Your task to perform on an android device: Show me productivity apps on the Play Store Image 0: 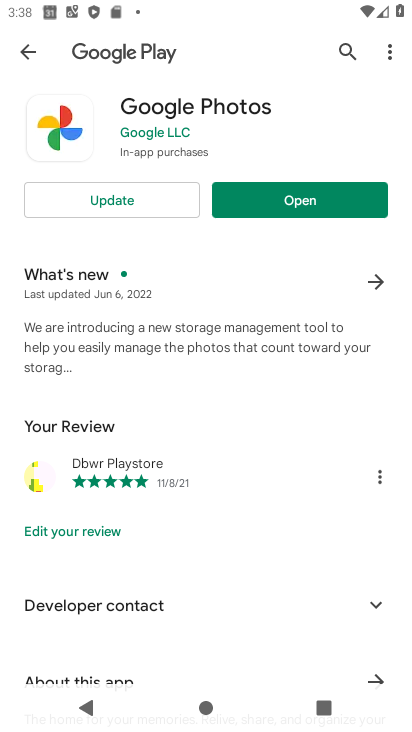
Step 0: press home button
Your task to perform on an android device: Show me productivity apps on the Play Store Image 1: 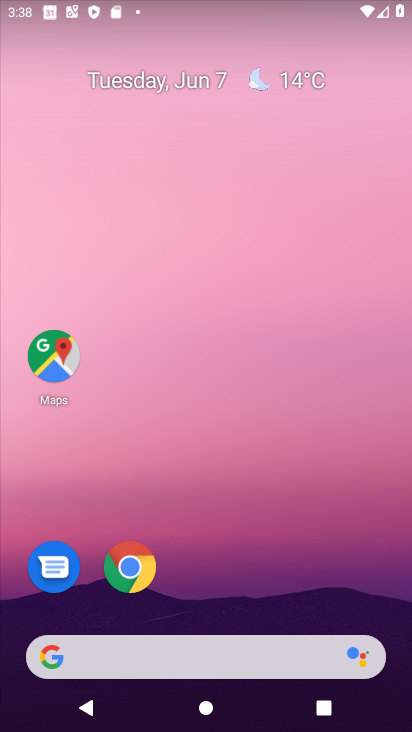
Step 1: drag from (188, 594) to (137, 184)
Your task to perform on an android device: Show me productivity apps on the Play Store Image 2: 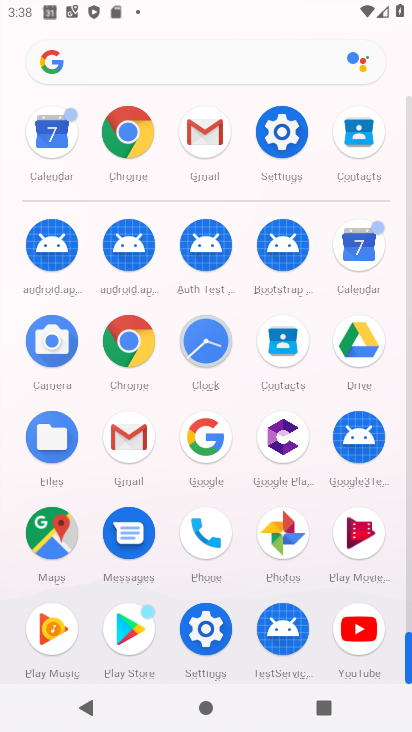
Step 2: click (132, 605)
Your task to perform on an android device: Show me productivity apps on the Play Store Image 3: 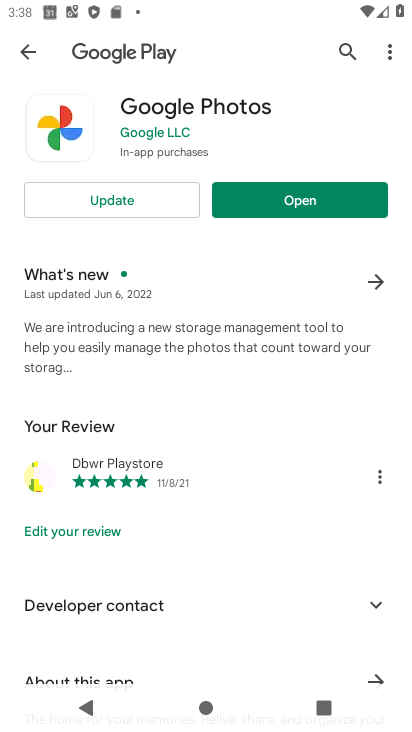
Step 3: click (28, 53)
Your task to perform on an android device: Show me productivity apps on the Play Store Image 4: 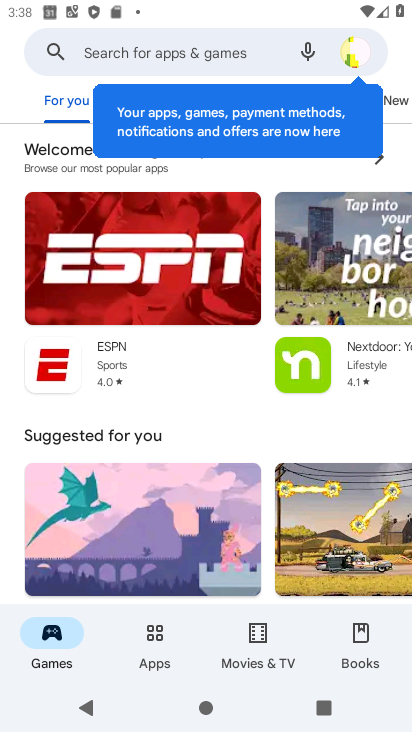
Step 4: click (150, 640)
Your task to perform on an android device: Show me productivity apps on the Play Store Image 5: 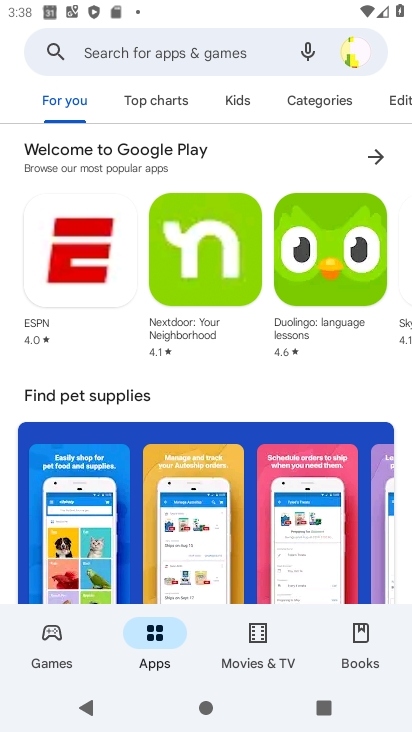
Step 5: click (333, 95)
Your task to perform on an android device: Show me productivity apps on the Play Store Image 6: 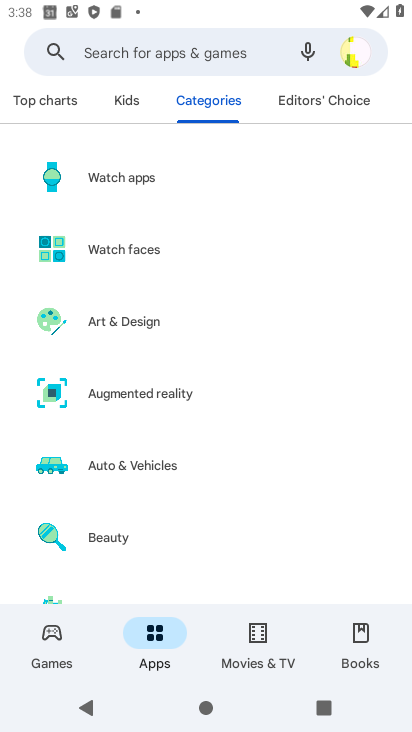
Step 6: drag from (175, 390) to (198, 211)
Your task to perform on an android device: Show me productivity apps on the Play Store Image 7: 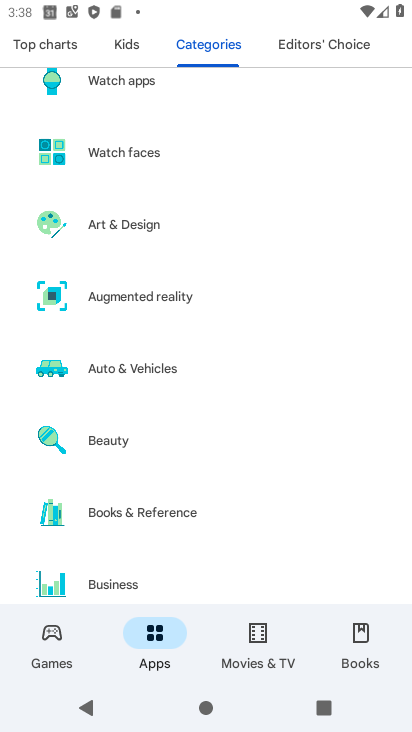
Step 7: drag from (197, 498) to (207, 276)
Your task to perform on an android device: Show me productivity apps on the Play Store Image 8: 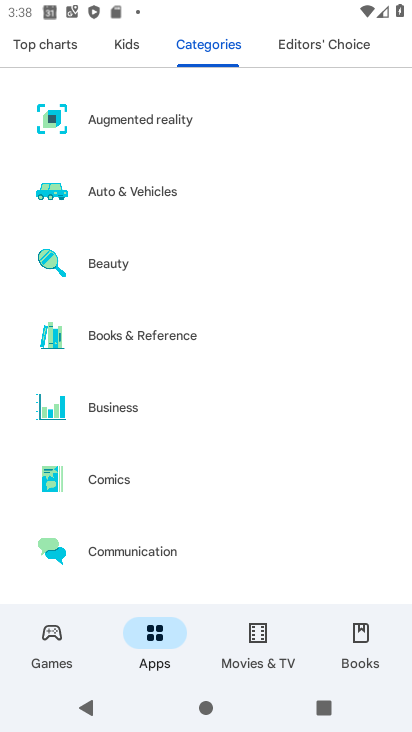
Step 8: drag from (165, 508) to (168, 259)
Your task to perform on an android device: Show me productivity apps on the Play Store Image 9: 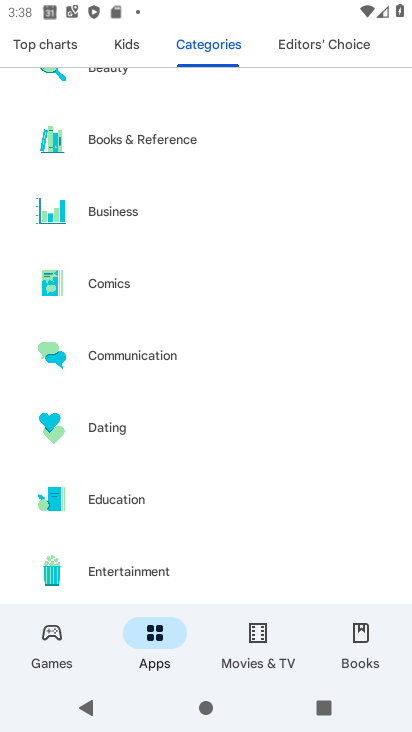
Step 9: drag from (215, 473) to (238, 226)
Your task to perform on an android device: Show me productivity apps on the Play Store Image 10: 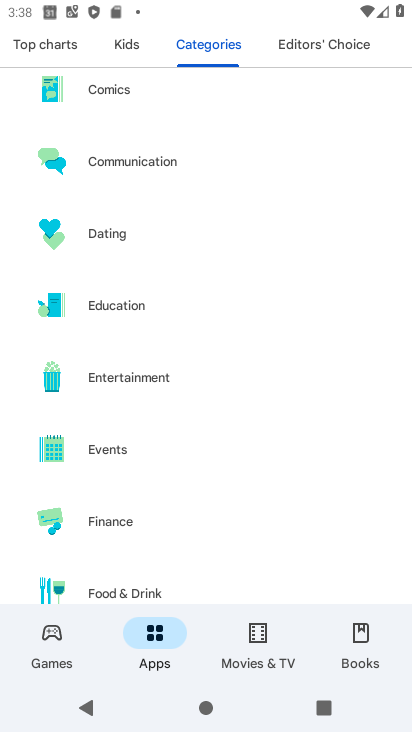
Step 10: drag from (239, 482) to (256, 227)
Your task to perform on an android device: Show me productivity apps on the Play Store Image 11: 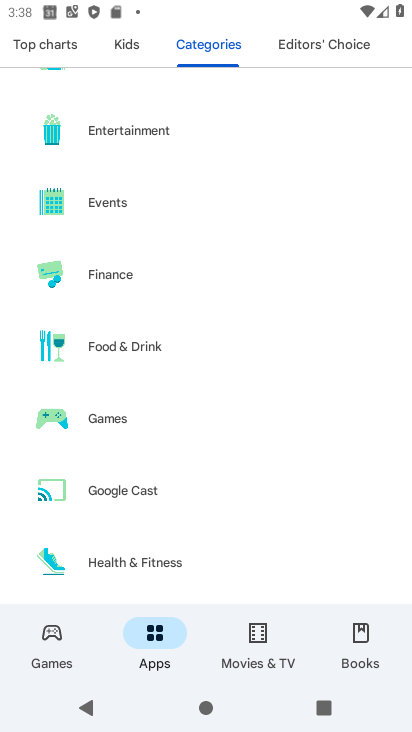
Step 11: drag from (174, 528) to (201, 241)
Your task to perform on an android device: Show me productivity apps on the Play Store Image 12: 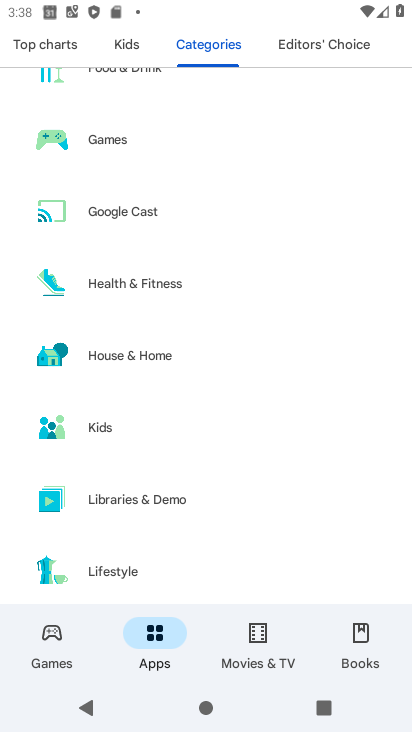
Step 12: drag from (198, 525) to (213, 237)
Your task to perform on an android device: Show me productivity apps on the Play Store Image 13: 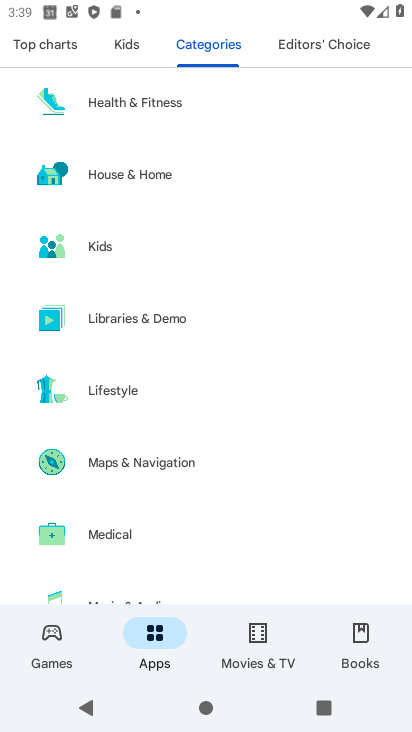
Step 13: drag from (207, 488) to (220, 217)
Your task to perform on an android device: Show me productivity apps on the Play Store Image 14: 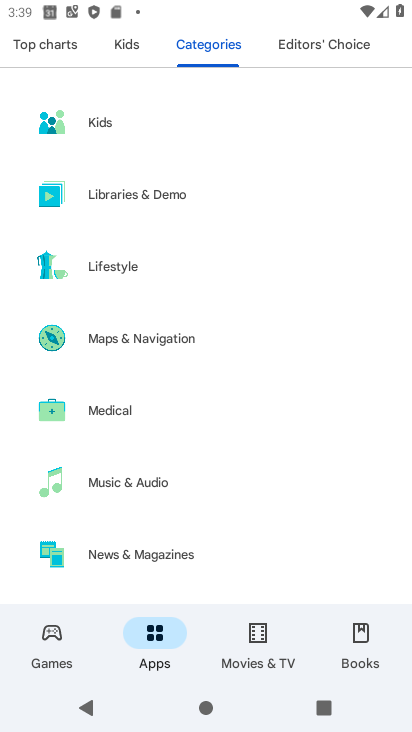
Step 14: drag from (206, 528) to (218, 220)
Your task to perform on an android device: Show me productivity apps on the Play Store Image 15: 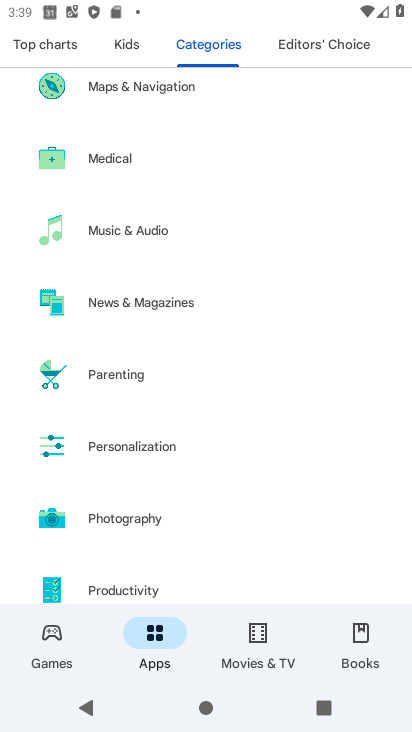
Step 15: click (159, 577)
Your task to perform on an android device: Show me productivity apps on the Play Store Image 16: 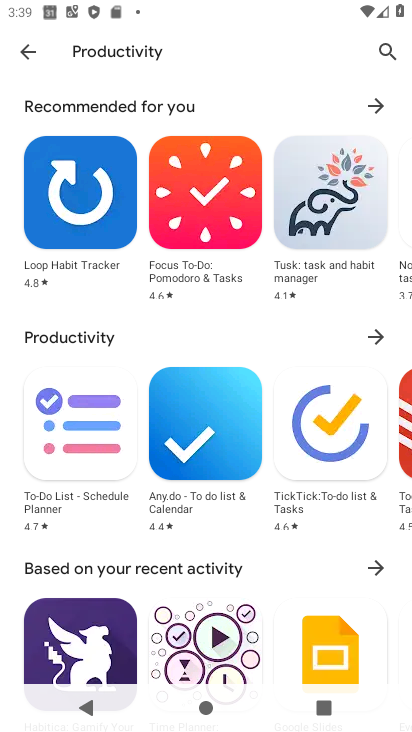
Step 16: task complete